Your task to perform on an android device: View the shopping cart on newegg.com. Image 0: 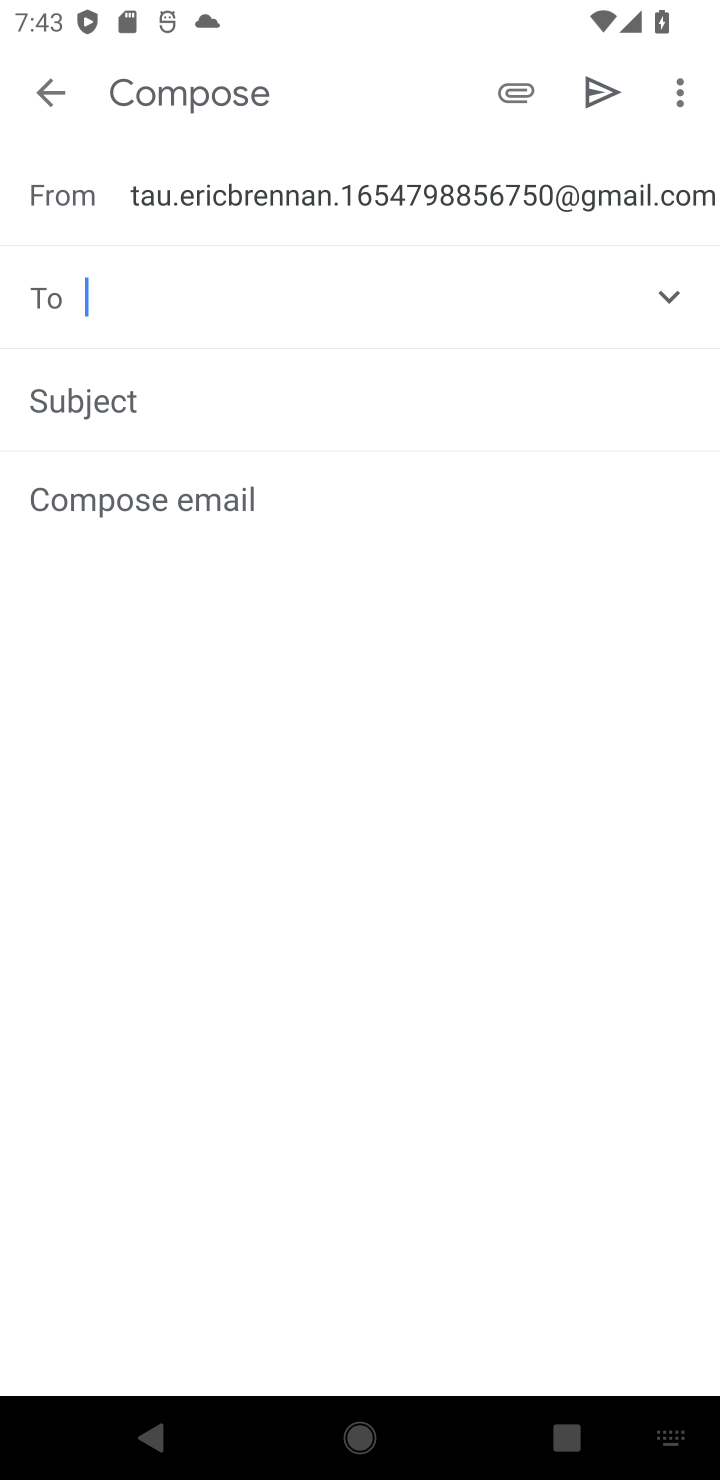
Step 0: press home button
Your task to perform on an android device: View the shopping cart on newegg.com. Image 1: 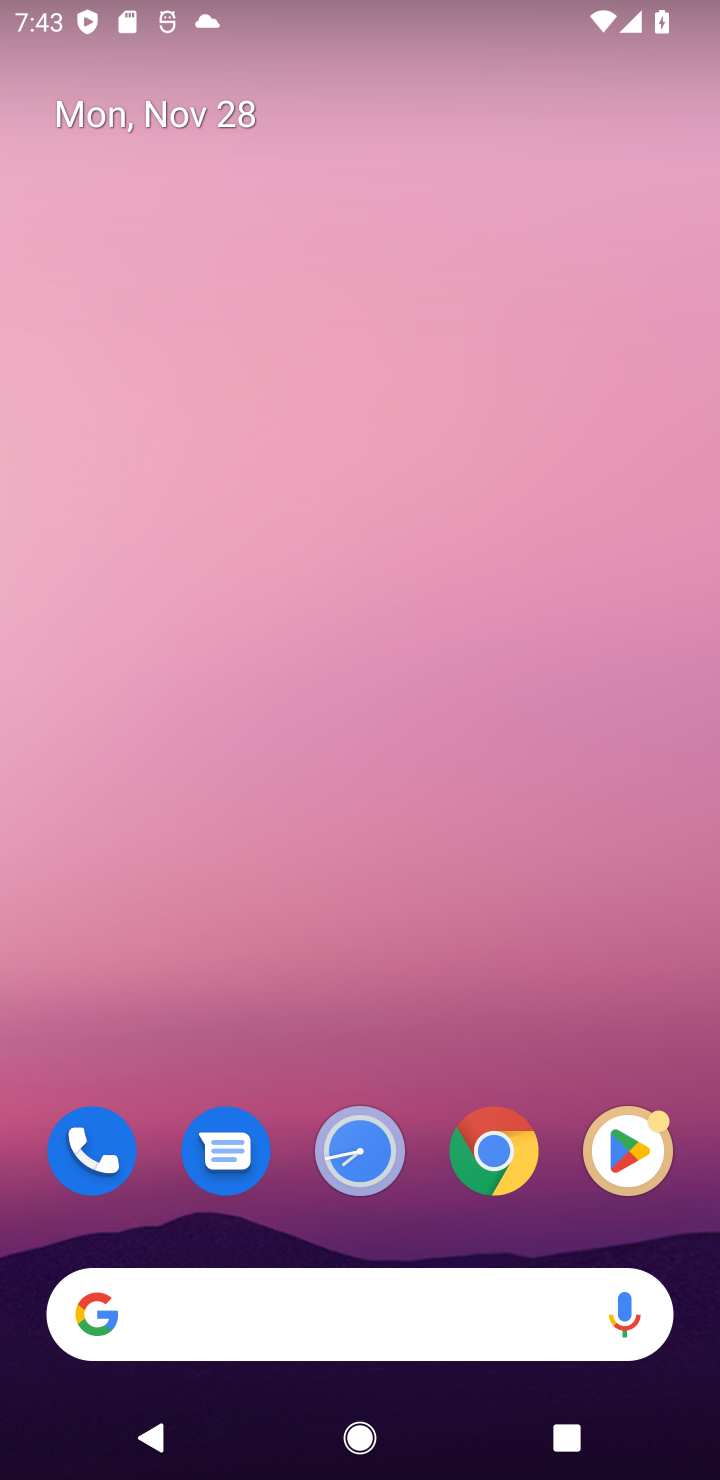
Step 1: click (358, 1344)
Your task to perform on an android device: View the shopping cart on newegg.com. Image 2: 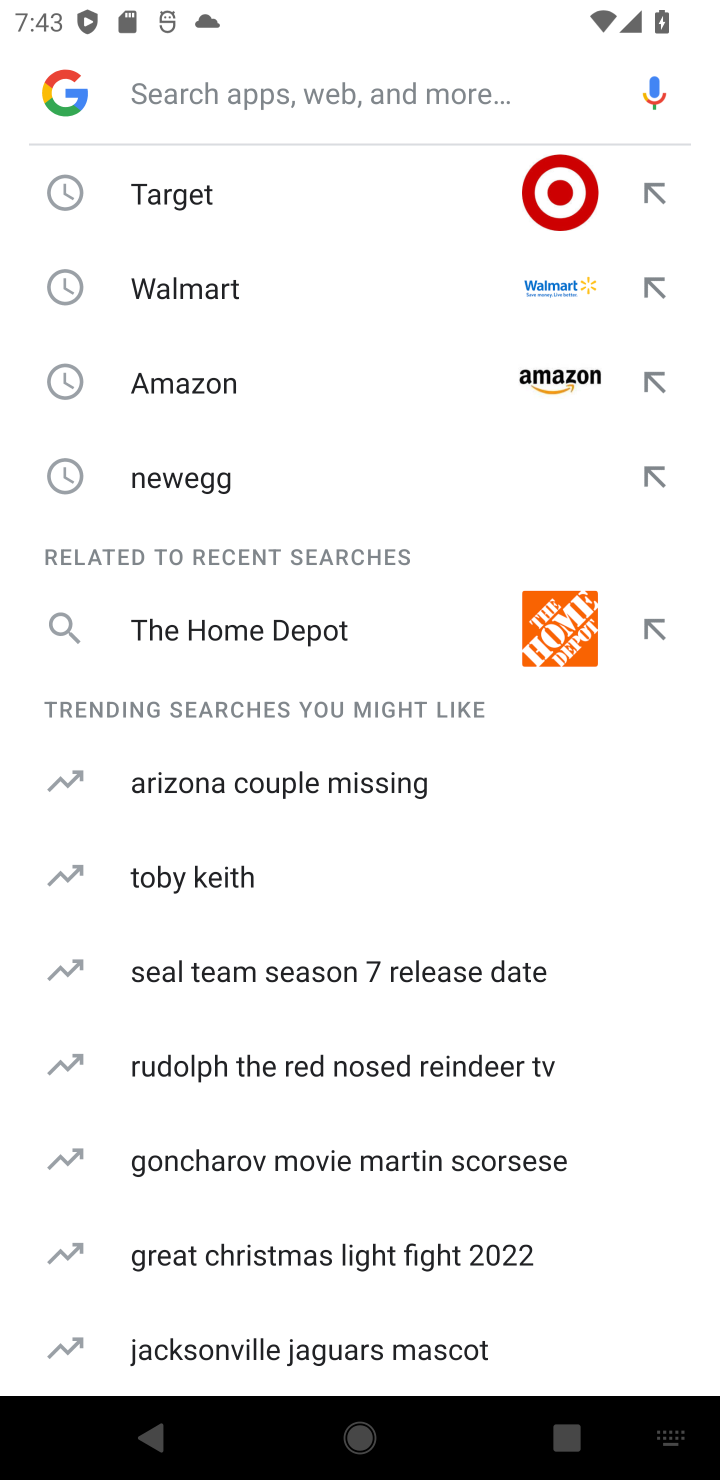
Step 2: type "newegg.com"
Your task to perform on an android device: View the shopping cart on newegg.com. Image 3: 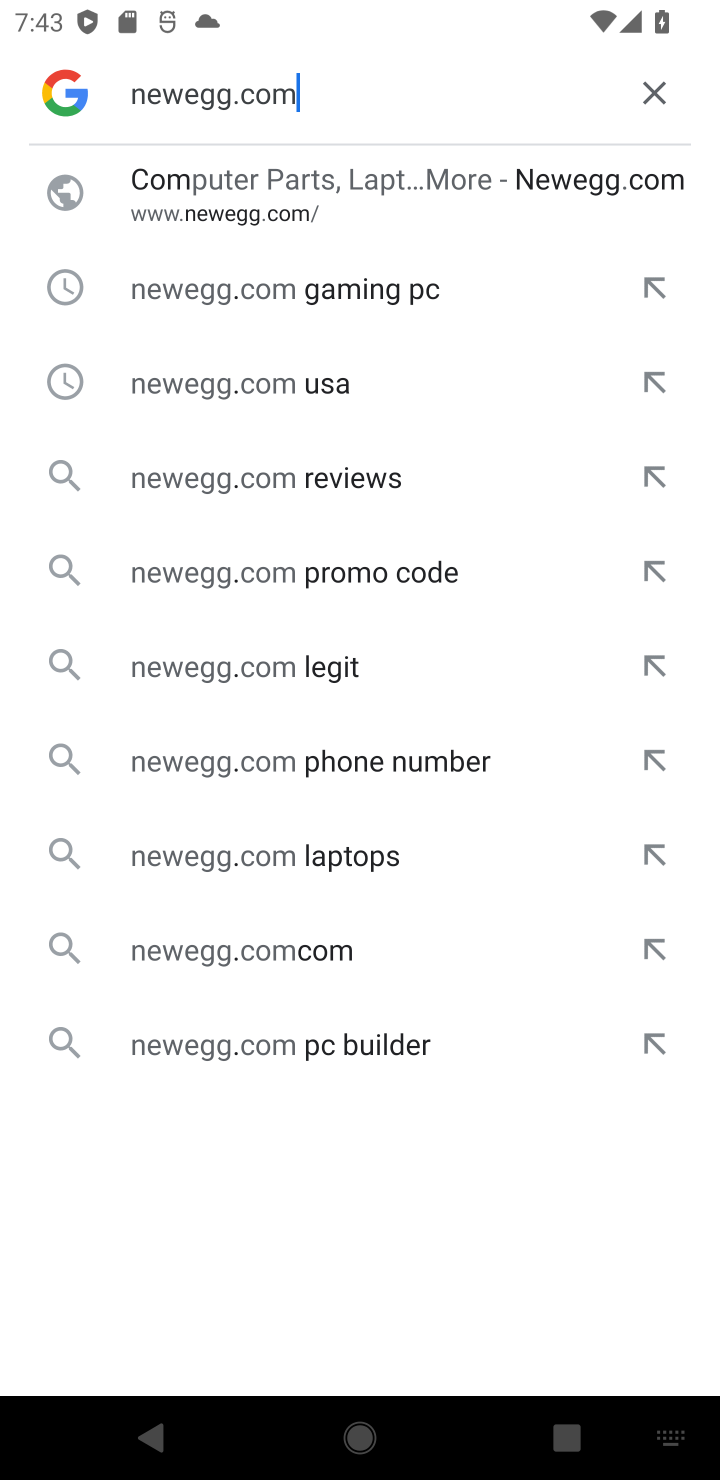
Step 3: click (419, 207)
Your task to perform on an android device: View the shopping cart on newegg.com. Image 4: 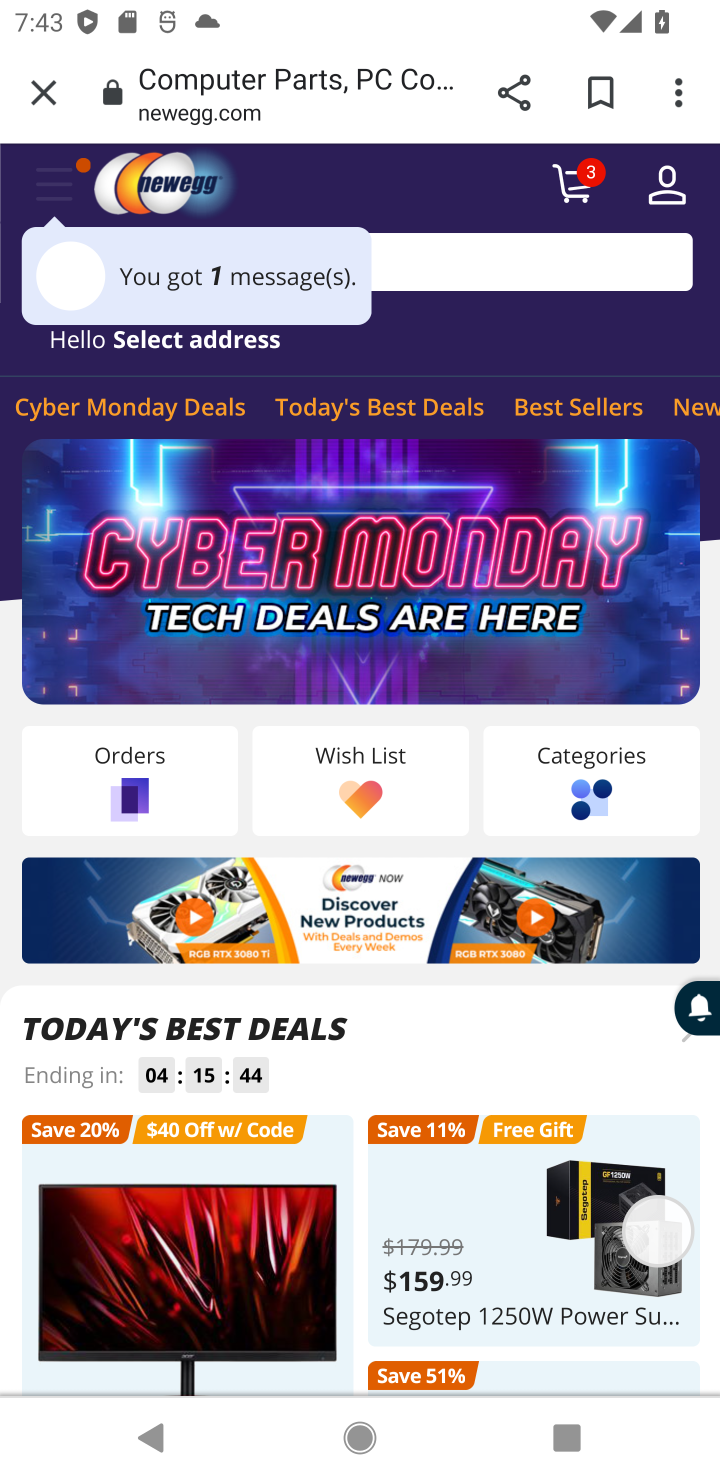
Step 4: click (362, 249)
Your task to perform on an android device: View the shopping cart on newegg.com. Image 5: 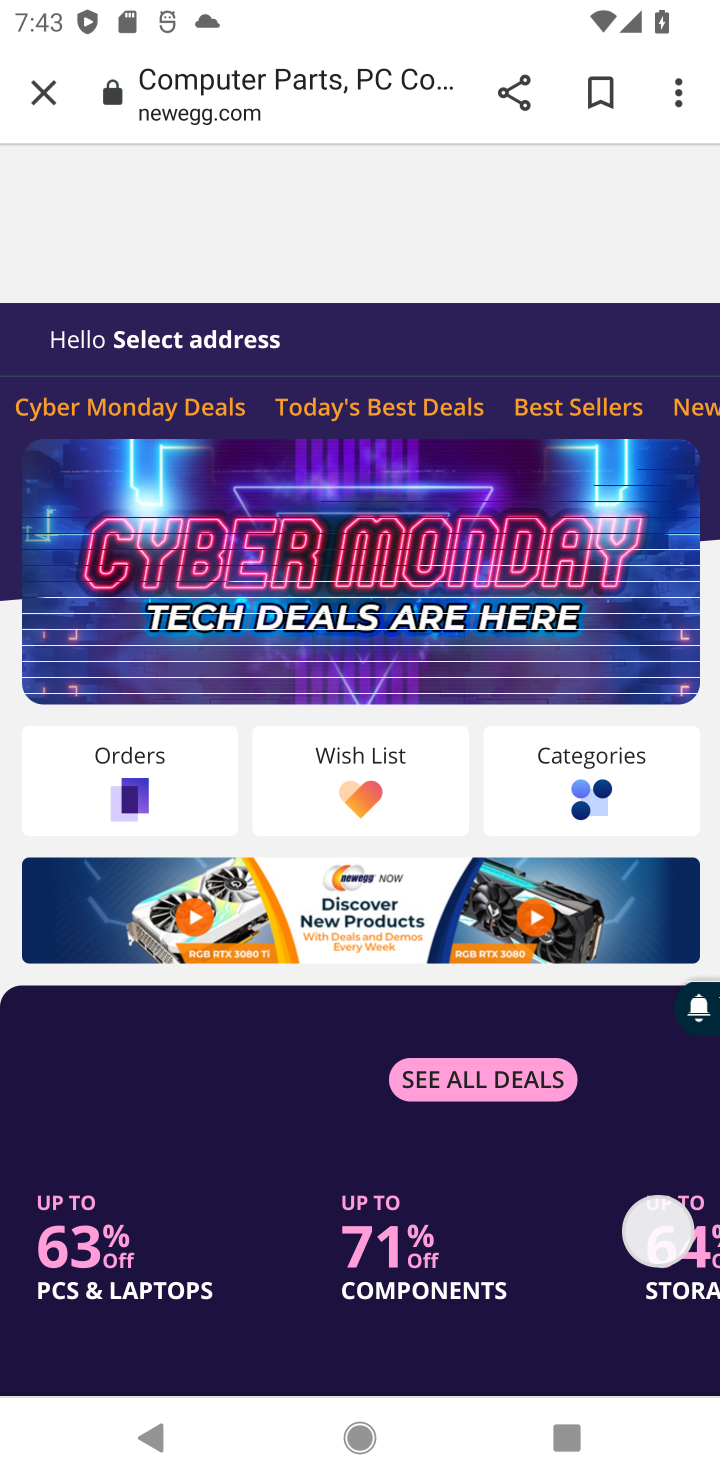
Step 5: click (555, 291)
Your task to perform on an android device: View the shopping cart on newegg.com. Image 6: 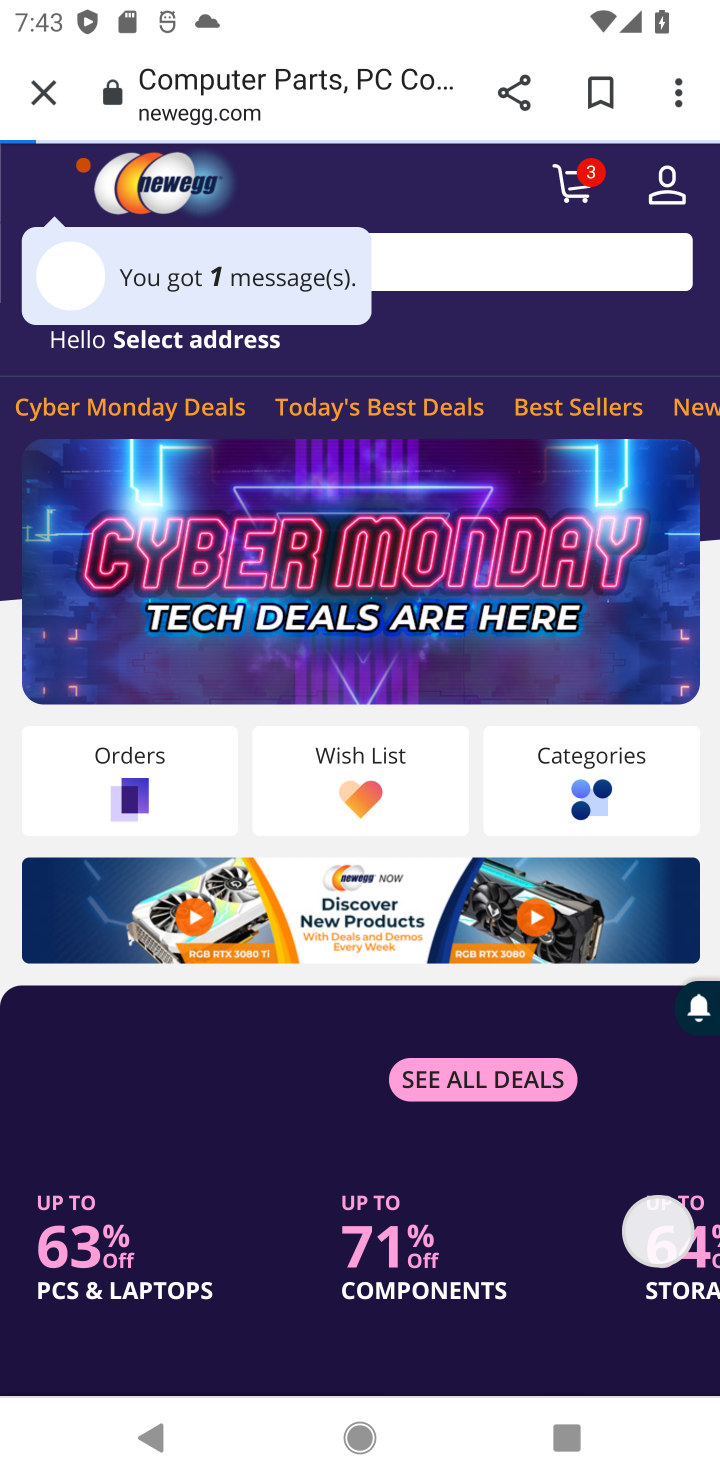
Step 6: click (555, 291)
Your task to perform on an android device: View the shopping cart on newegg.com. Image 7: 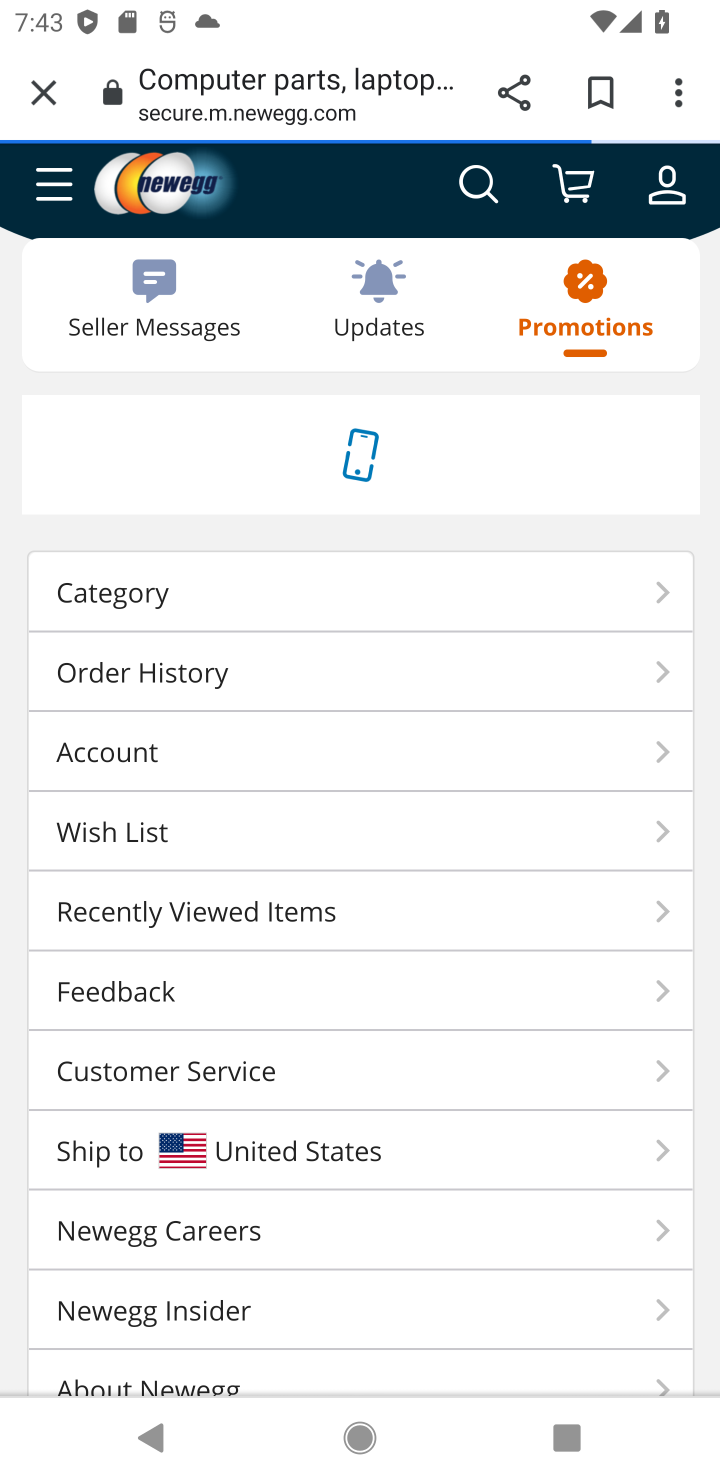
Step 7: task complete